Your task to perform on an android device: Show me the alarms in the clock app Image 0: 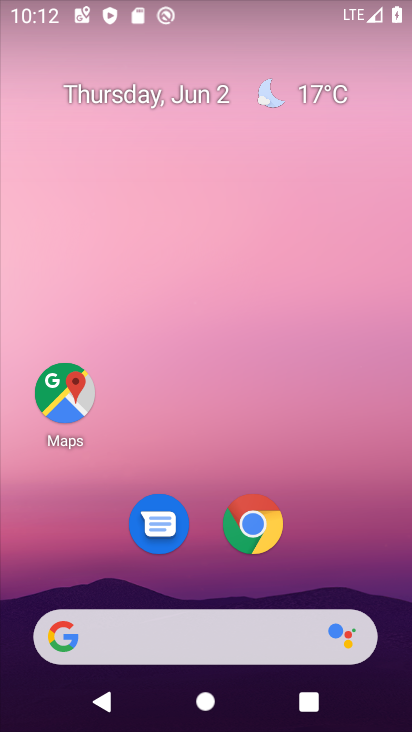
Step 0: drag from (218, 450) to (211, 0)
Your task to perform on an android device: Show me the alarms in the clock app Image 1: 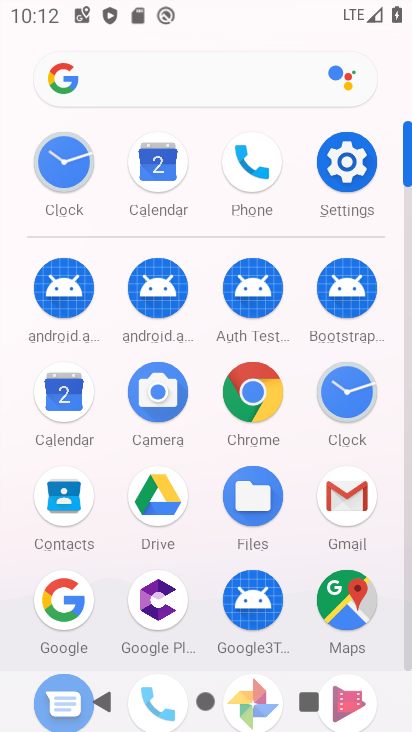
Step 1: click (353, 390)
Your task to perform on an android device: Show me the alarms in the clock app Image 2: 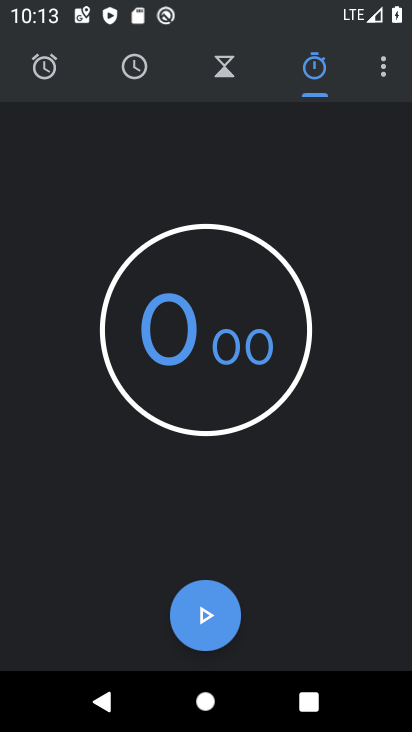
Step 2: click (51, 70)
Your task to perform on an android device: Show me the alarms in the clock app Image 3: 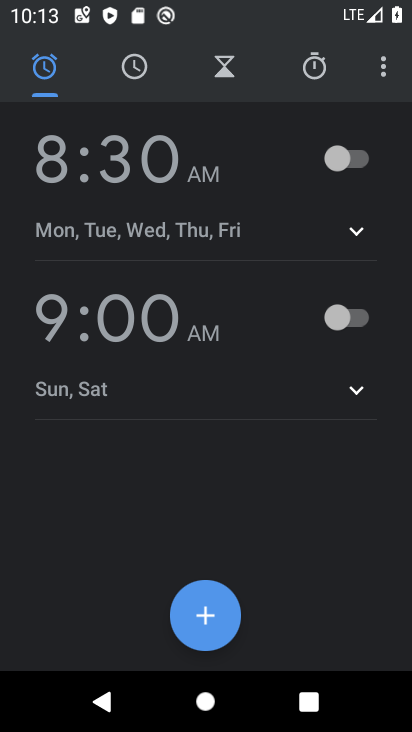
Step 3: task complete